Your task to perform on an android device: clear history in the chrome app Image 0: 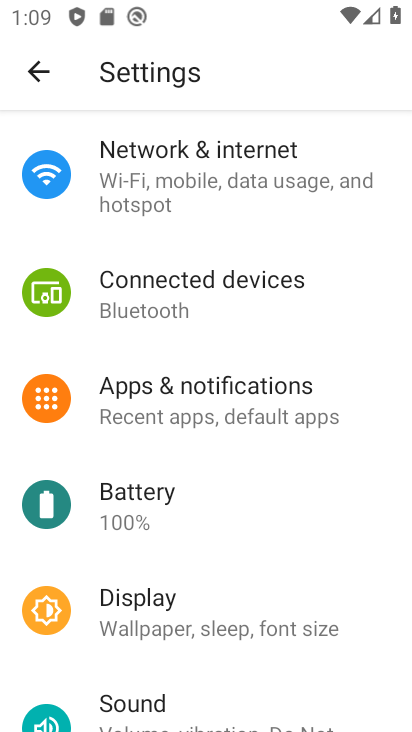
Step 0: task complete